Your task to perform on an android device: turn off priority inbox in the gmail app Image 0: 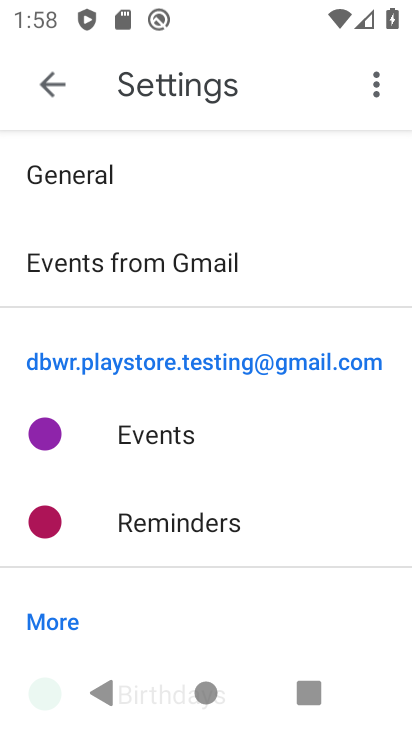
Step 0: press home button
Your task to perform on an android device: turn off priority inbox in the gmail app Image 1: 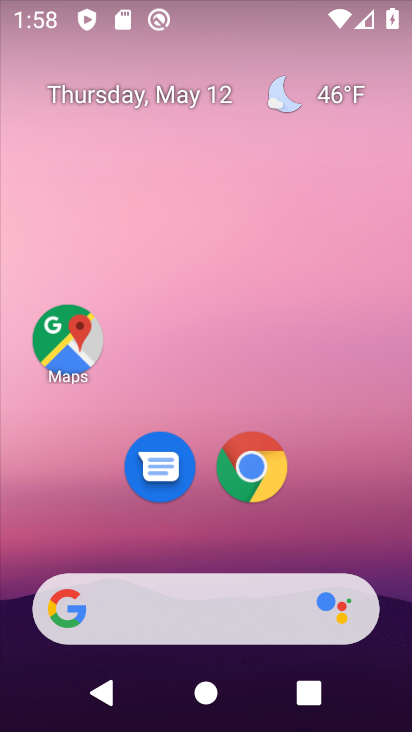
Step 1: drag from (381, 487) to (344, 125)
Your task to perform on an android device: turn off priority inbox in the gmail app Image 2: 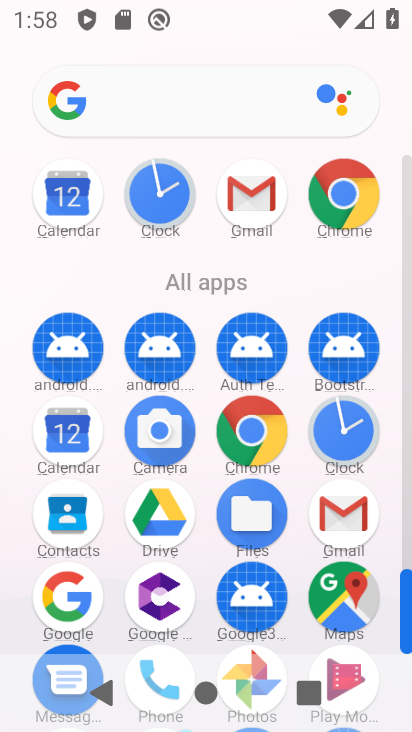
Step 2: click (340, 525)
Your task to perform on an android device: turn off priority inbox in the gmail app Image 3: 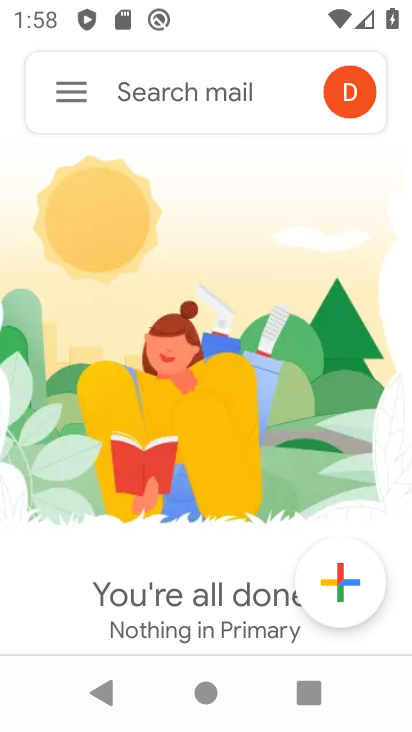
Step 3: click (80, 96)
Your task to perform on an android device: turn off priority inbox in the gmail app Image 4: 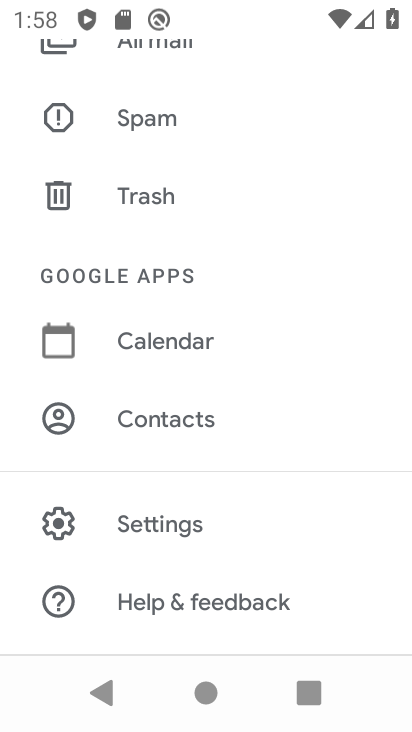
Step 4: drag from (202, 271) to (200, 325)
Your task to perform on an android device: turn off priority inbox in the gmail app Image 5: 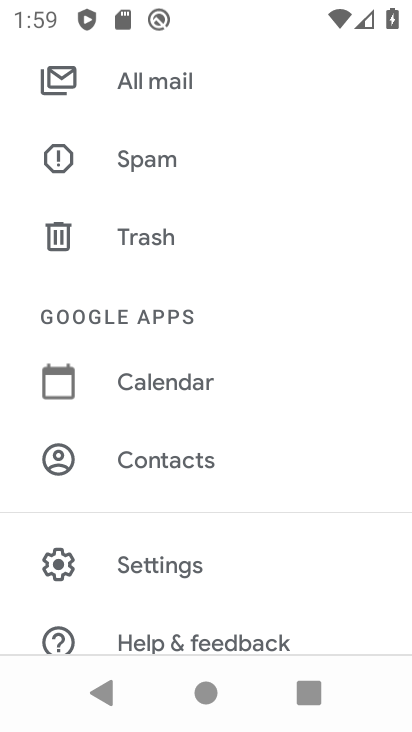
Step 5: click (211, 558)
Your task to perform on an android device: turn off priority inbox in the gmail app Image 6: 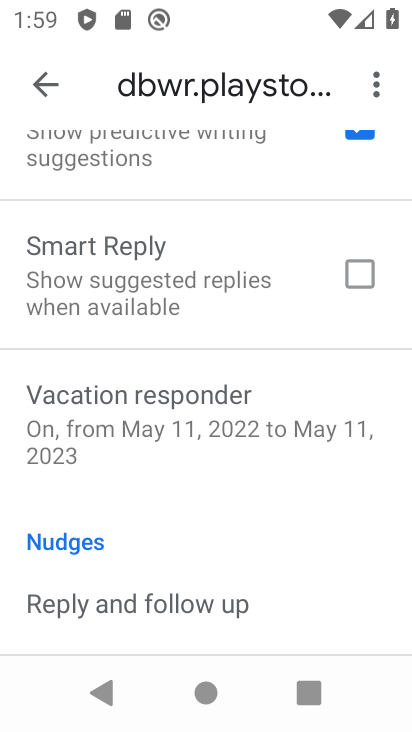
Step 6: task complete